Your task to perform on an android device: star an email in the gmail app Image 0: 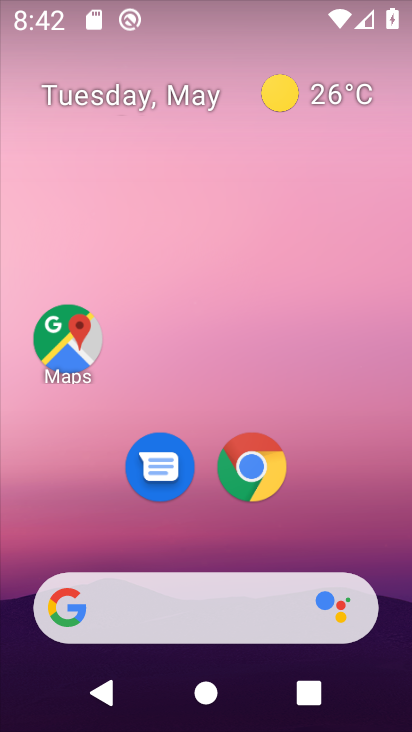
Step 0: drag from (384, 642) to (263, 180)
Your task to perform on an android device: star an email in the gmail app Image 1: 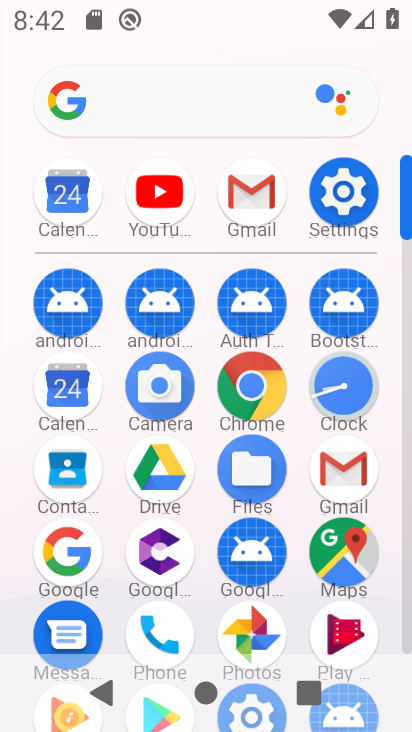
Step 1: click (365, 488)
Your task to perform on an android device: star an email in the gmail app Image 2: 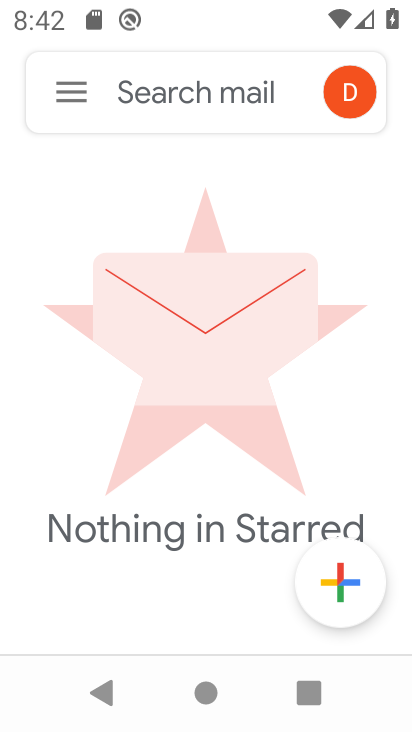
Step 2: click (66, 77)
Your task to perform on an android device: star an email in the gmail app Image 3: 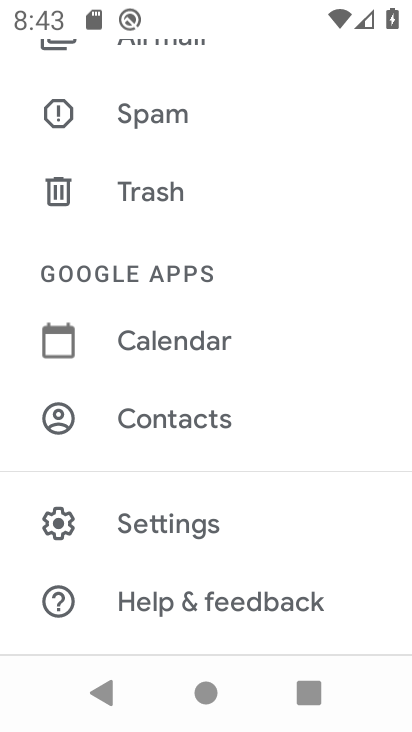
Step 3: drag from (268, 79) to (304, 707)
Your task to perform on an android device: star an email in the gmail app Image 4: 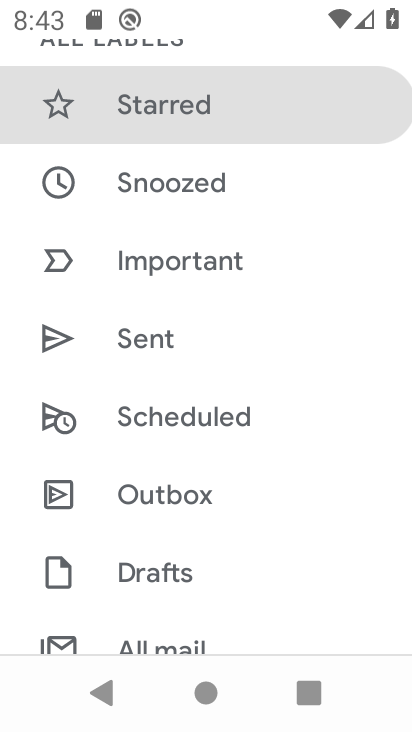
Step 4: drag from (292, 120) to (349, 731)
Your task to perform on an android device: star an email in the gmail app Image 5: 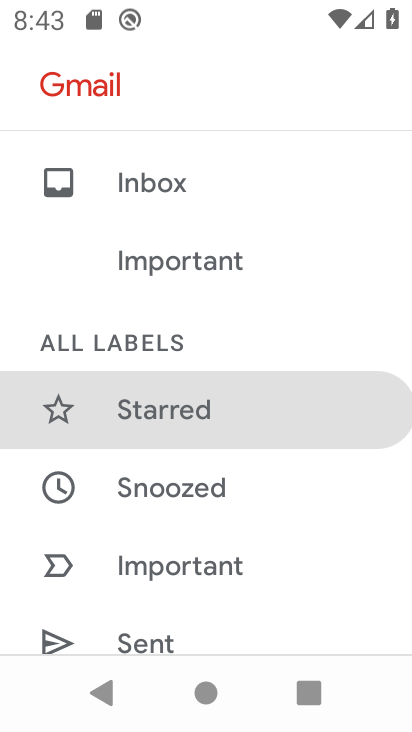
Step 5: click (126, 179)
Your task to perform on an android device: star an email in the gmail app Image 6: 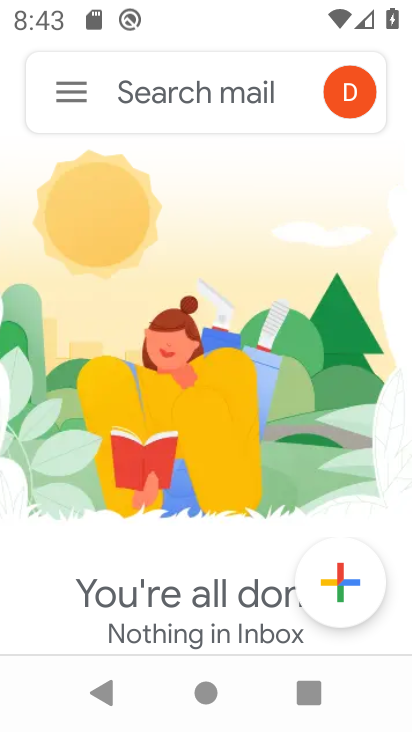
Step 6: task complete